Your task to perform on an android device: open app "Flipkart Online Shopping App" Image 0: 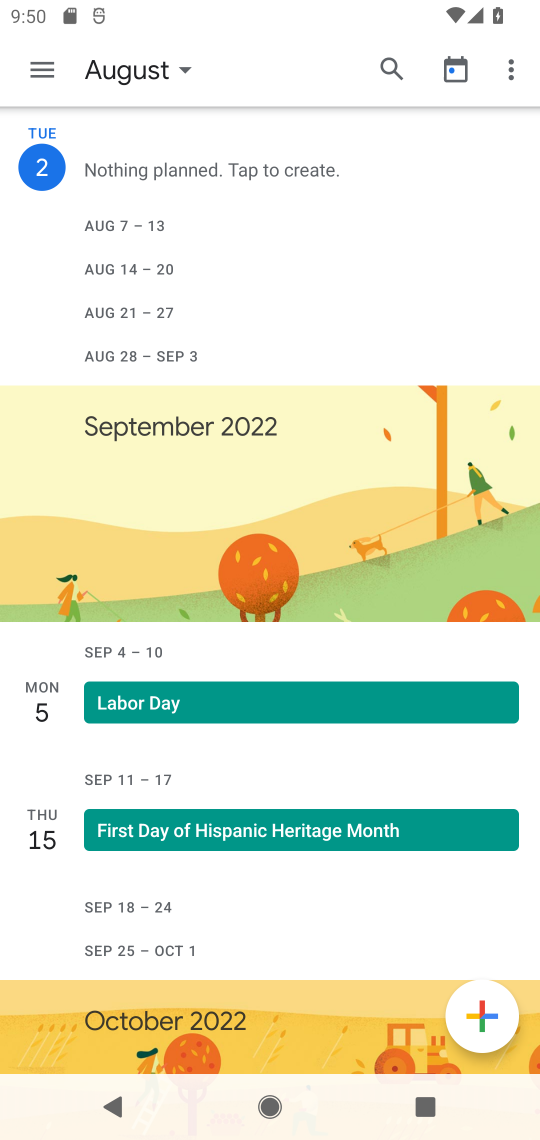
Step 0: press home button
Your task to perform on an android device: open app "Flipkart Online Shopping App" Image 1: 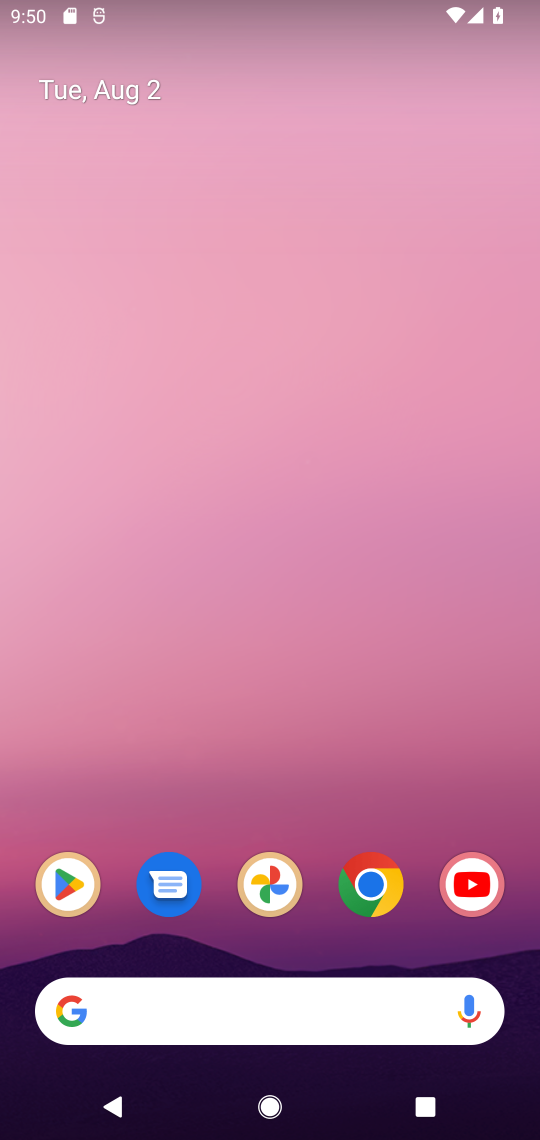
Step 1: click (67, 893)
Your task to perform on an android device: open app "Flipkart Online Shopping App" Image 2: 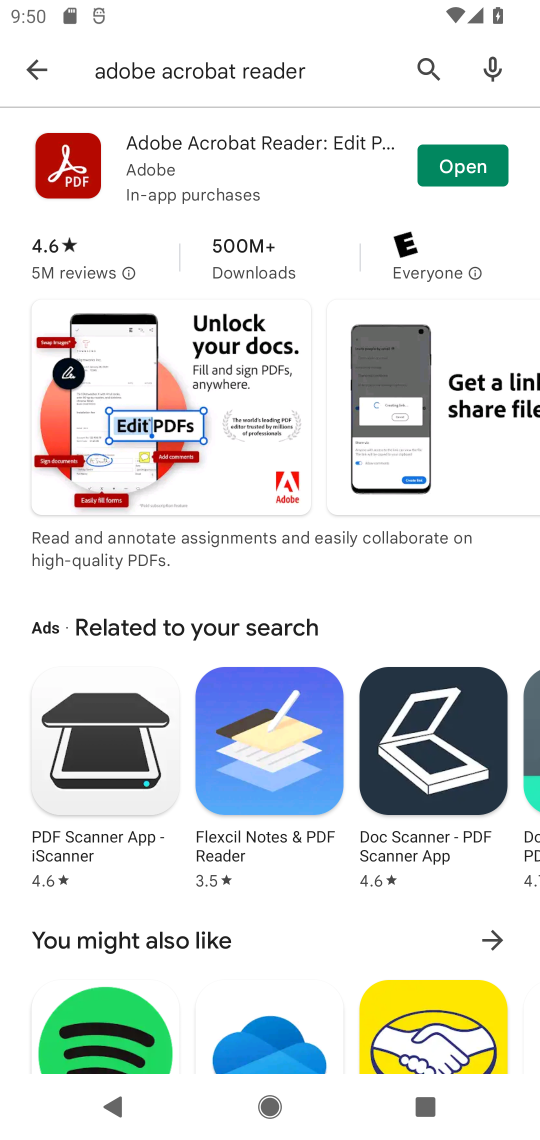
Step 2: click (236, 69)
Your task to perform on an android device: open app "Flipkart Online Shopping App" Image 3: 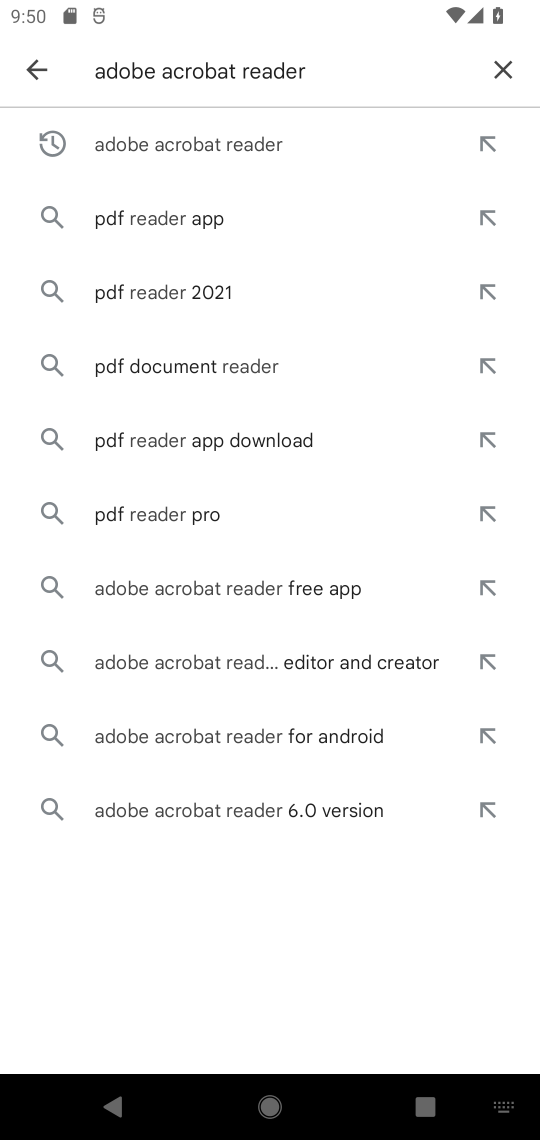
Step 3: click (491, 59)
Your task to perform on an android device: open app "Flipkart Online Shopping App" Image 4: 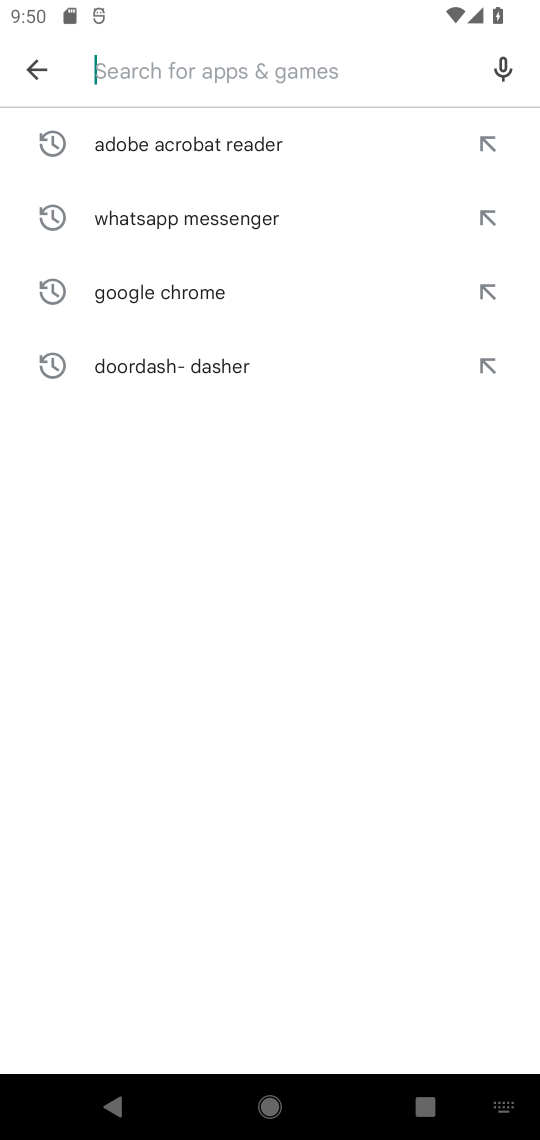
Step 4: type "flipkart"
Your task to perform on an android device: open app "Flipkart Online Shopping App" Image 5: 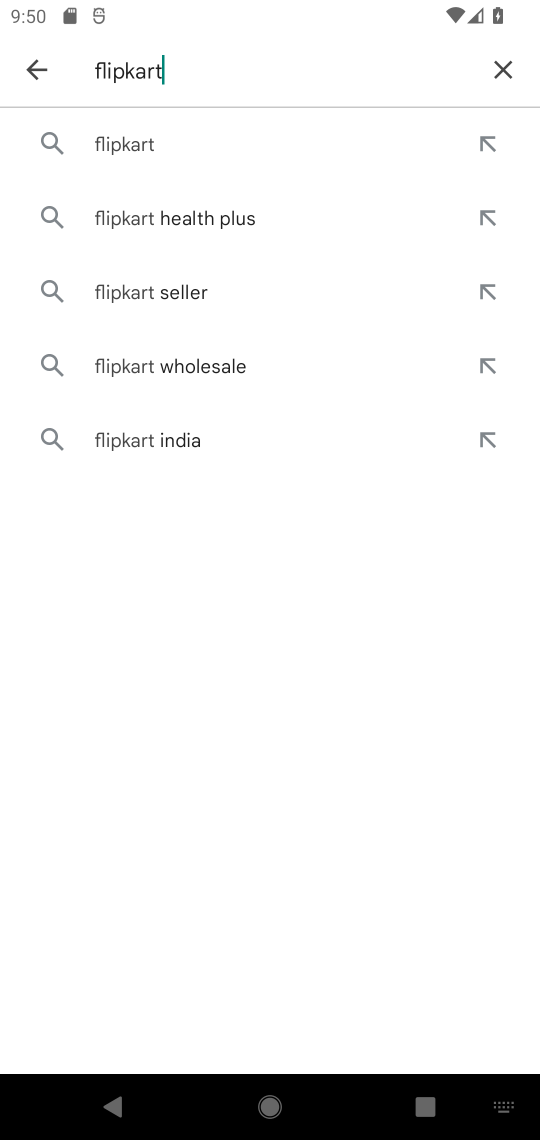
Step 5: click (138, 139)
Your task to perform on an android device: open app "Flipkart Online Shopping App" Image 6: 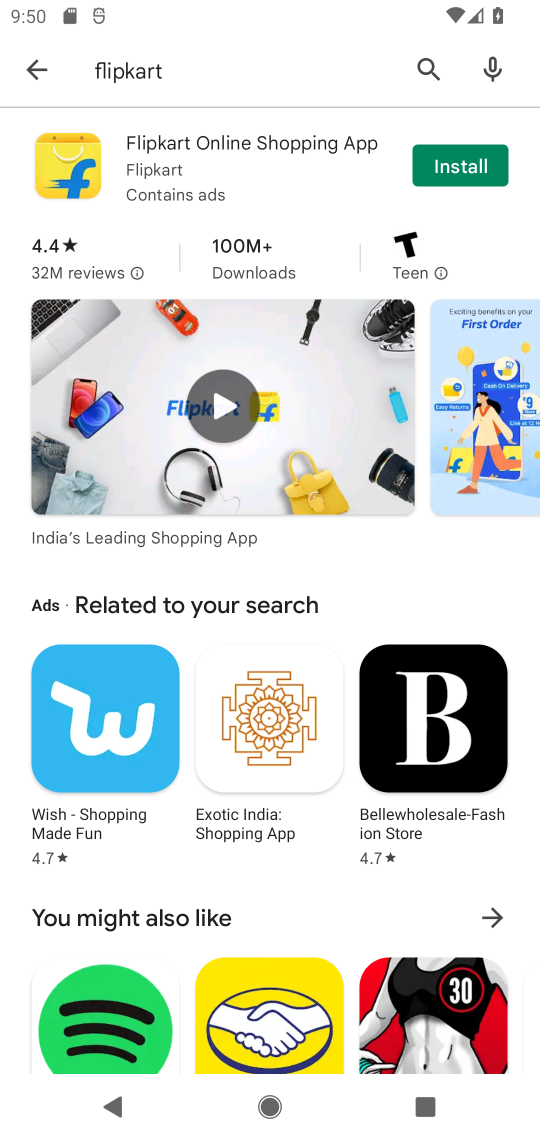
Step 6: task complete